Your task to perform on an android device: change the clock display to show seconds Image 0: 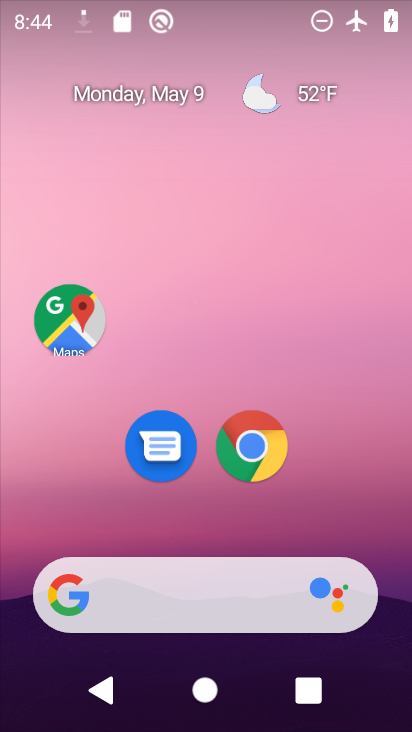
Step 0: drag from (403, 608) to (388, 27)
Your task to perform on an android device: change the clock display to show seconds Image 1: 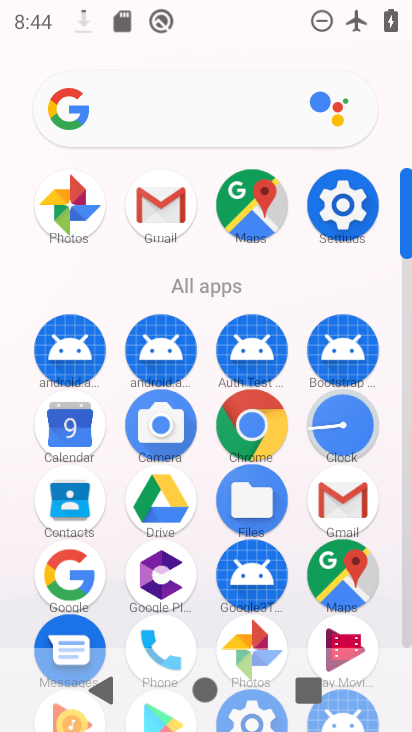
Step 1: click (406, 632)
Your task to perform on an android device: change the clock display to show seconds Image 2: 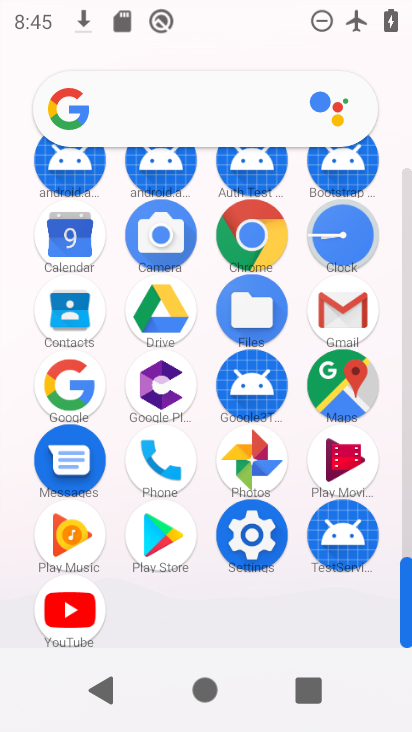
Step 2: click (343, 238)
Your task to perform on an android device: change the clock display to show seconds Image 3: 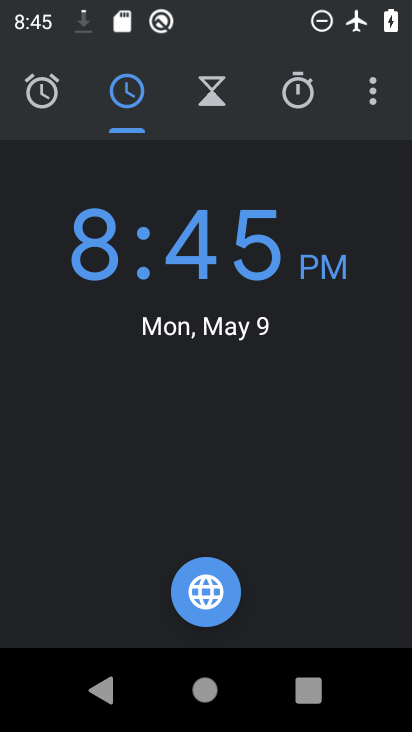
Step 3: click (369, 92)
Your task to perform on an android device: change the clock display to show seconds Image 4: 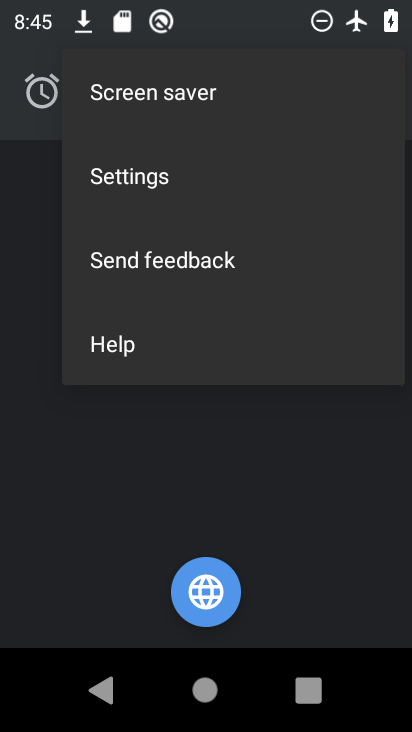
Step 4: click (120, 173)
Your task to perform on an android device: change the clock display to show seconds Image 5: 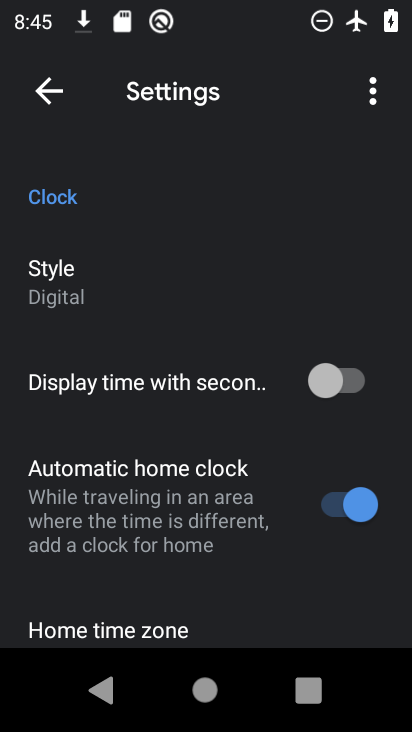
Step 5: click (355, 381)
Your task to perform on an android device: change the clock display to show seconds Image 6: 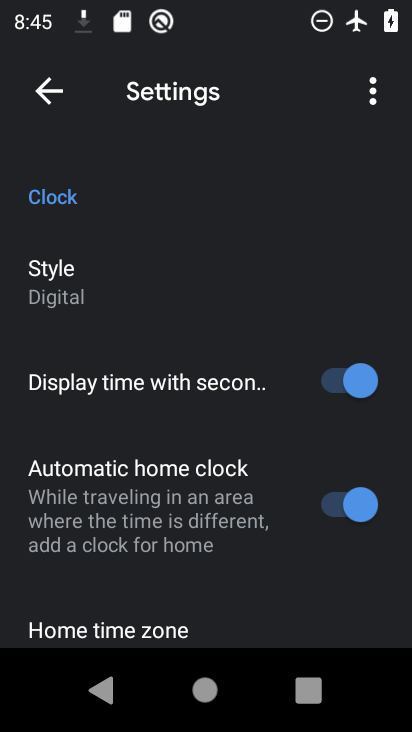
Step 6: task complete